Your task to perform on an android device: Search for the best vacuum on Amazon. Image 0: 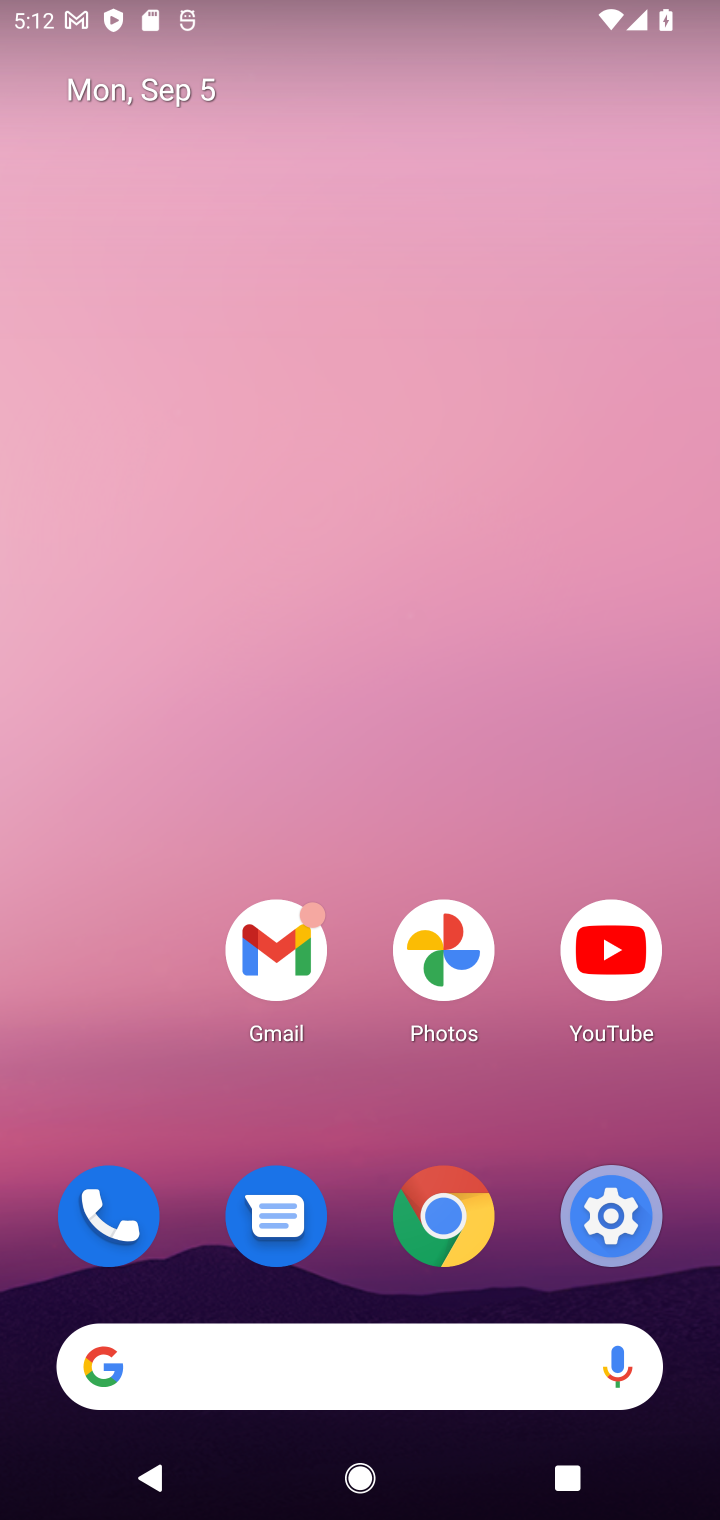
Step 0: click (448, 1213)
Your task to perform on an android device: Search for the best vacuum on Amazon. Image 1: 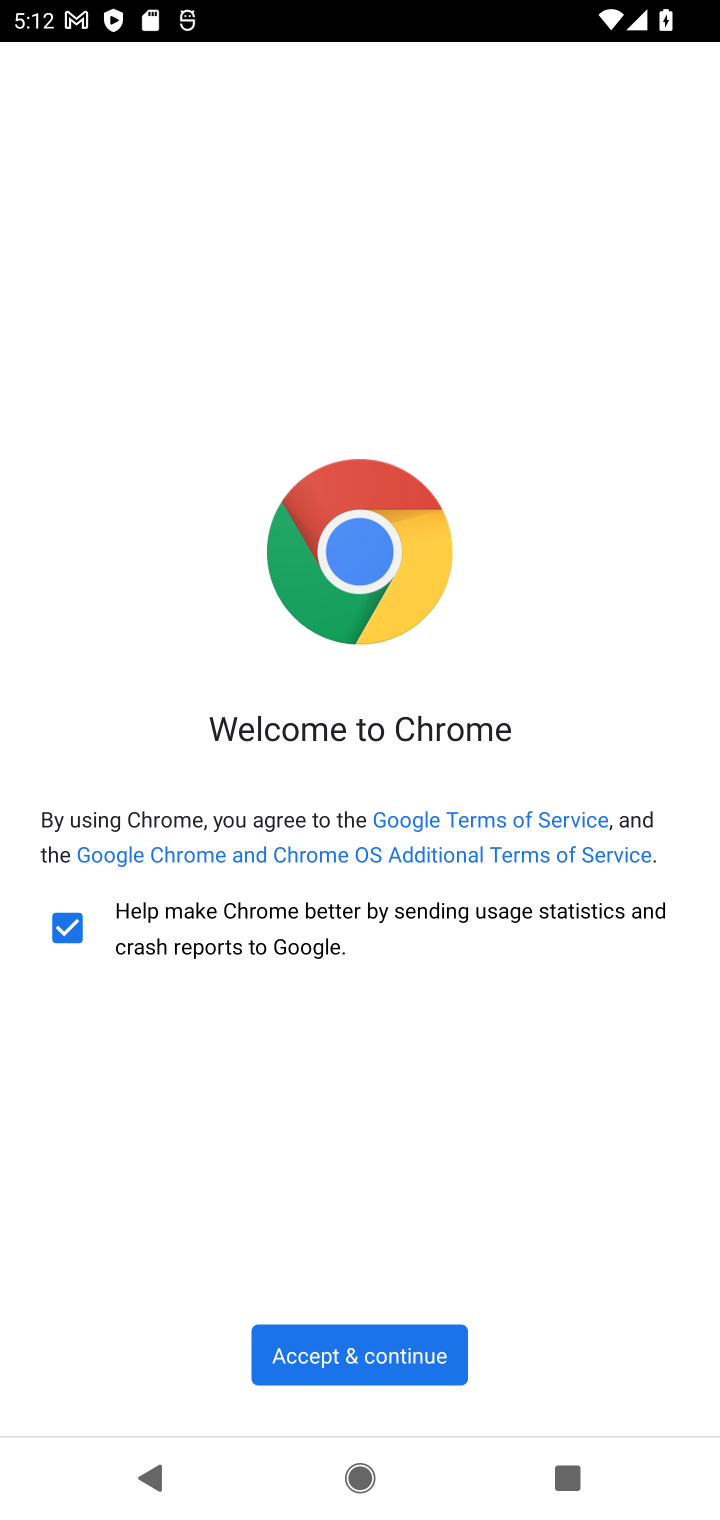
Step 1: click (400, 1370)
Your task to perform on an android device: Search for the best vacuum on Amazon. Image 2: 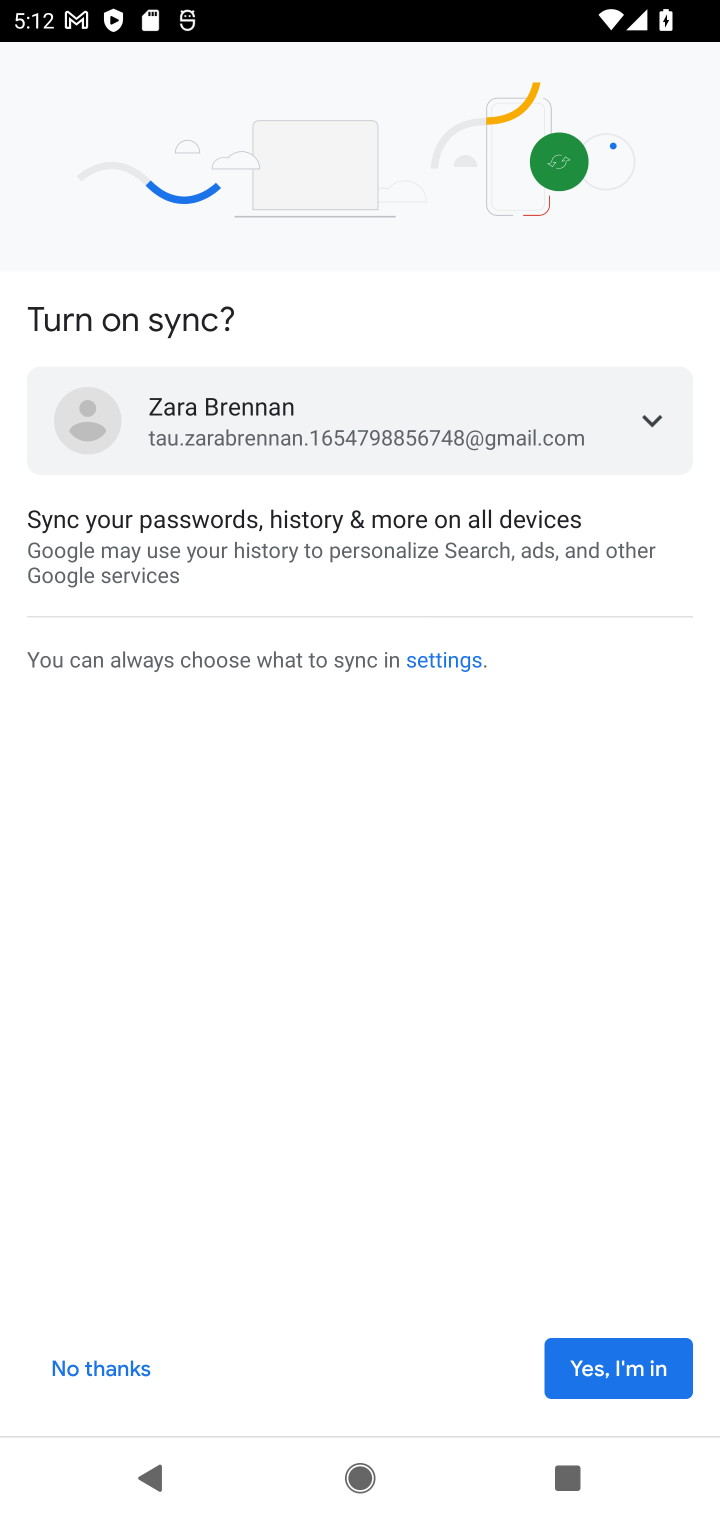
Step 2: click (621, 1383)
Your task to perform on an android device: Search for the best vacuum on Amazon. Image 3: 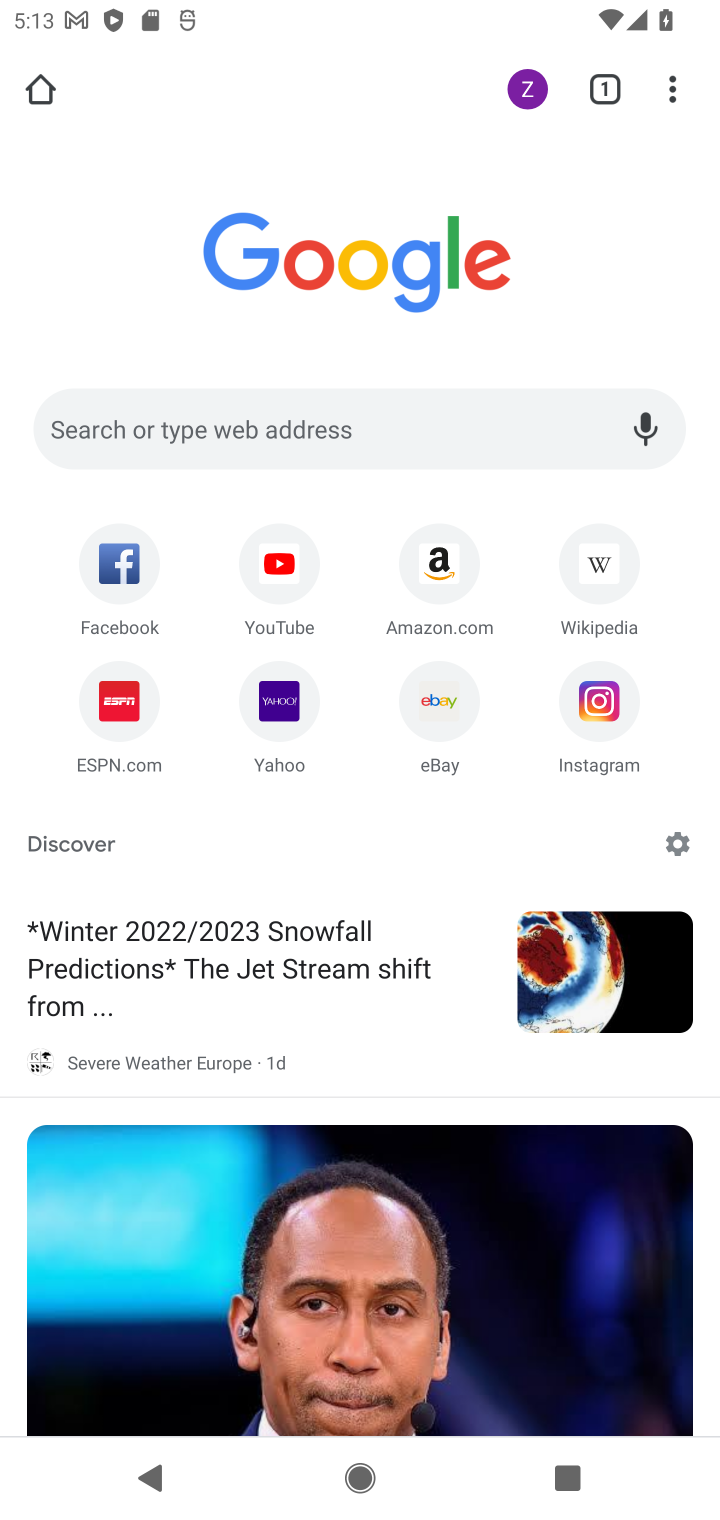
Step 3: click (328, 418)
Your task to perform on an android device: Search for the best vacuum on Amazon. Image 4: 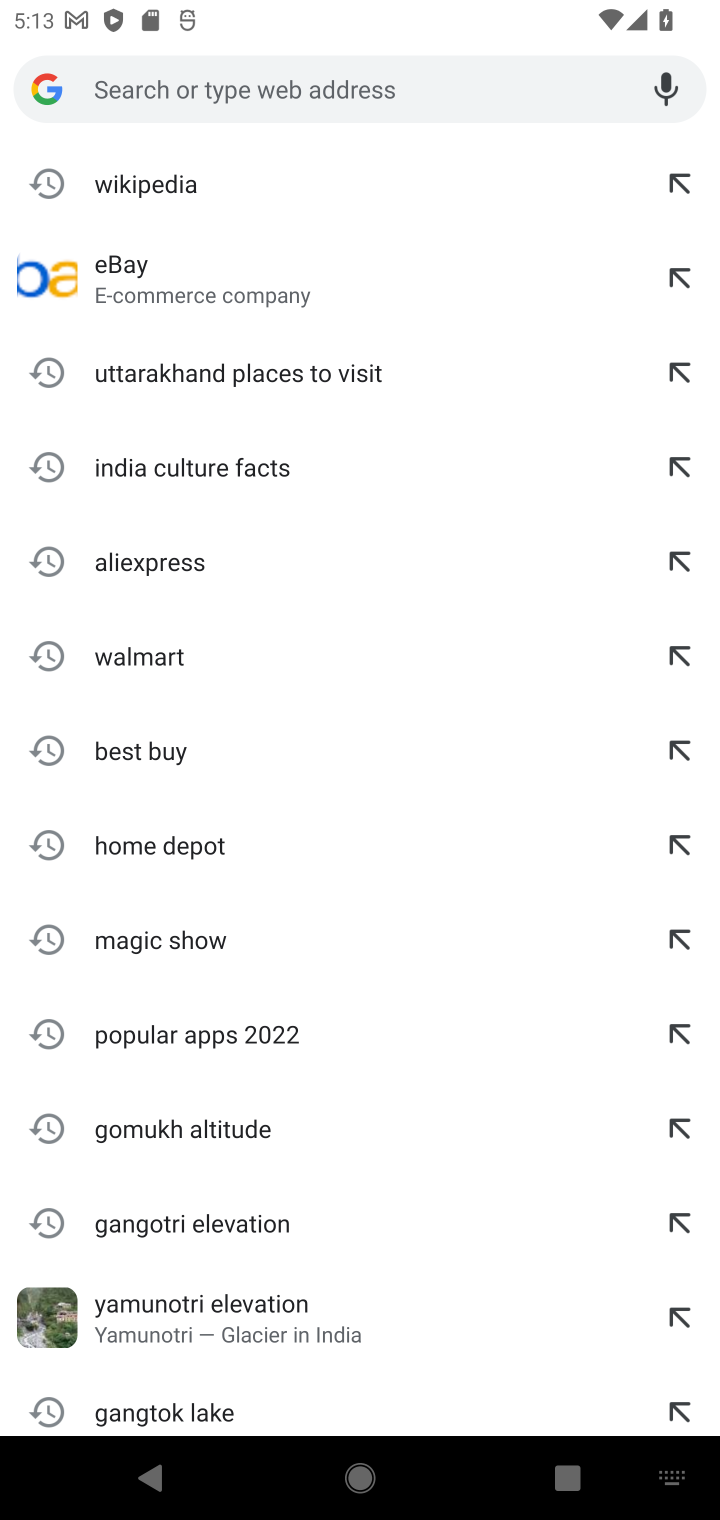
Step 4: type "amazon"
Your task to perform on an android device: Search for the best vacuum on Amazon. Image 5: 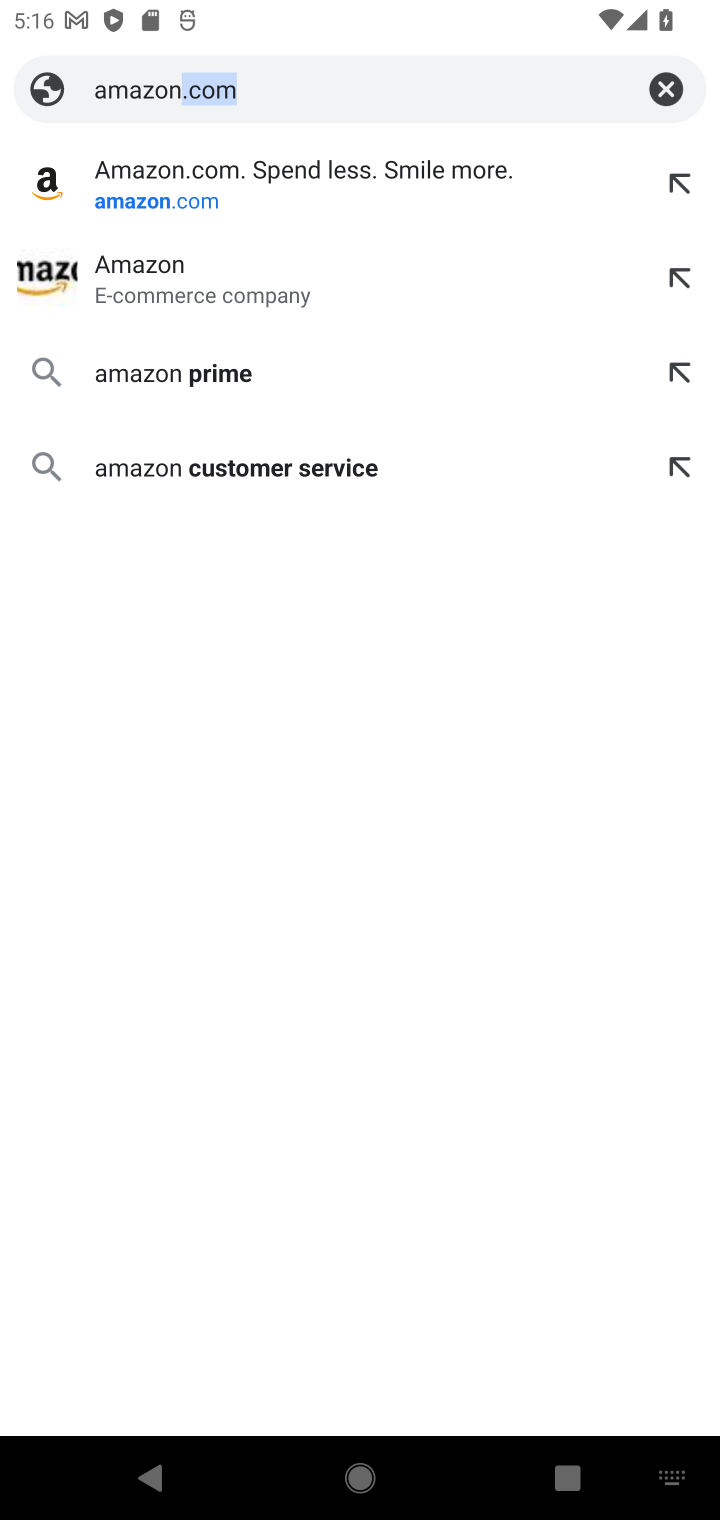
Step 5: task complete